Your task to perform on an android device: Open Maps and search for coffee Image 0: 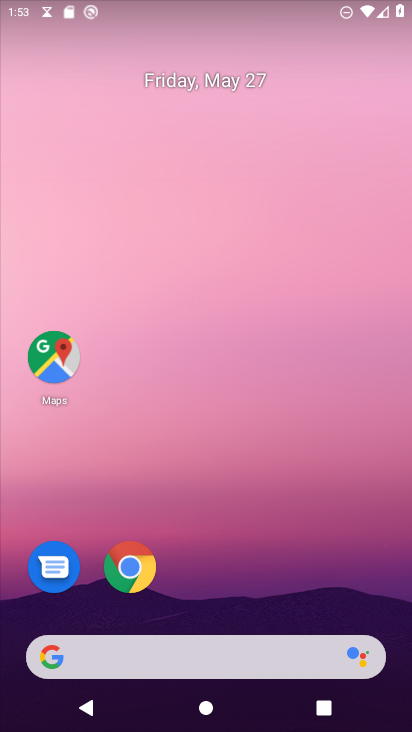
Step 0: click (55, 359)
Your task to perform on an android device: Open Maps and search for coffee Image 1: 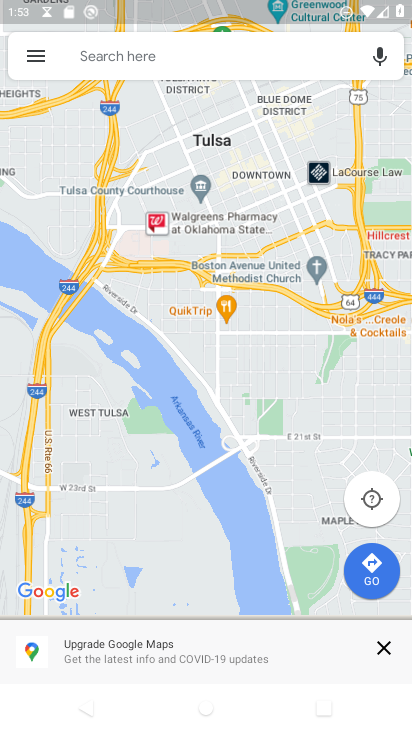
Step 1: click (121, 67)
Your task to perform on an android device: Open Maps and search for coffee Image 2: 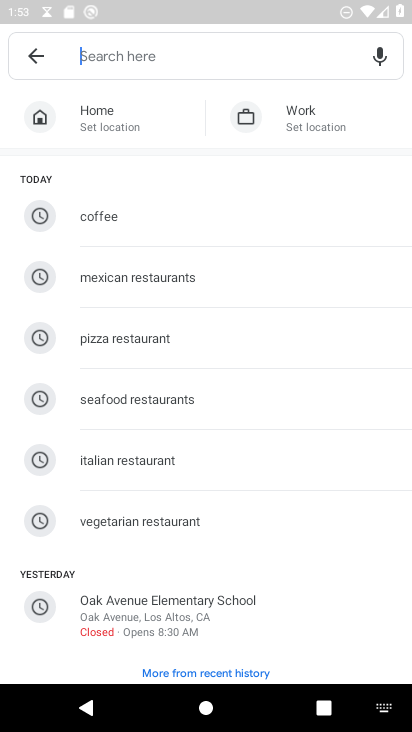
Step 2: click (107, 218)
Your task to perform on an android device: Open Maps and search for coffee Image 3: 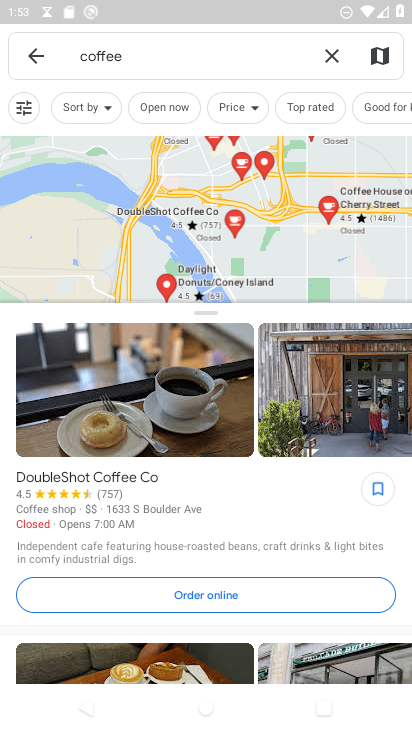
Step 3: task complete